Your task to perform on an android device: Go to Google maps Image 0: 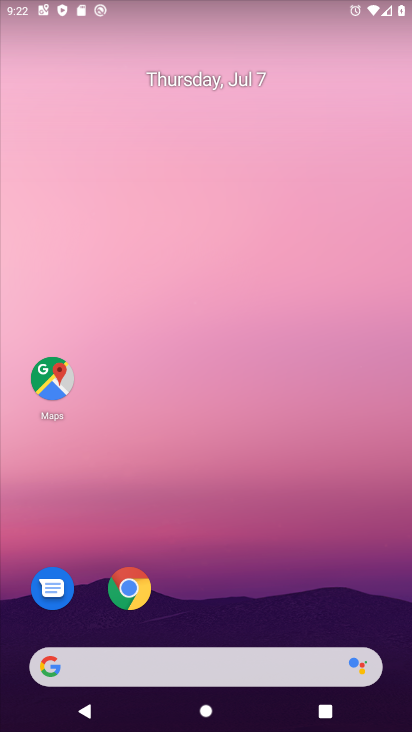
Step 0: click (47, 374)
Your task to perform on an android device: Go to Google maps Image 1: 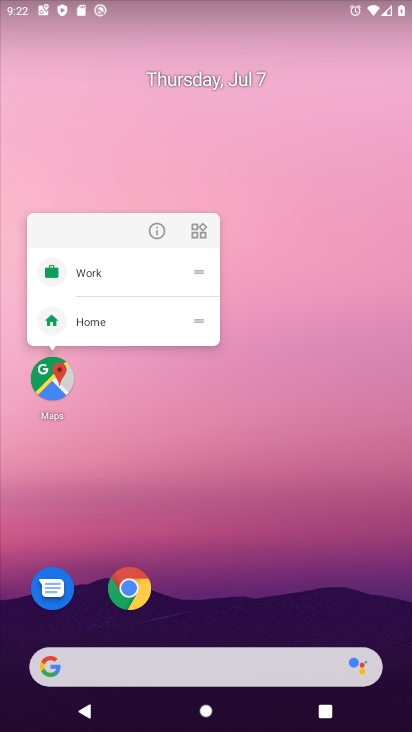
Step 1: click (47, 368)
Your task to perform on an android device: Go to Google maps Image 2: 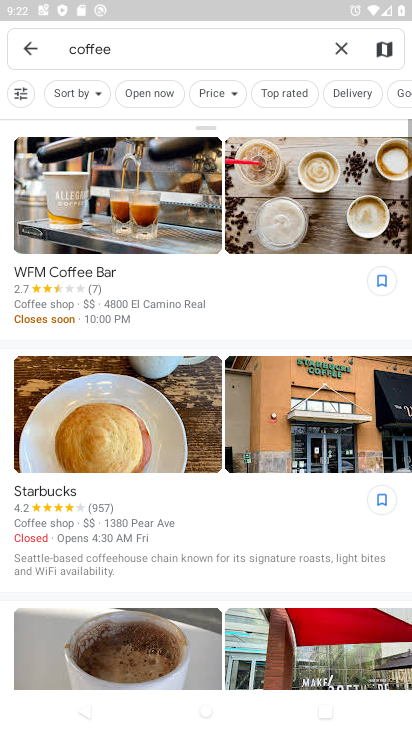
Step 2: click (23, 42)
Your task to perform on an android device: Go to Google maps Image 3: 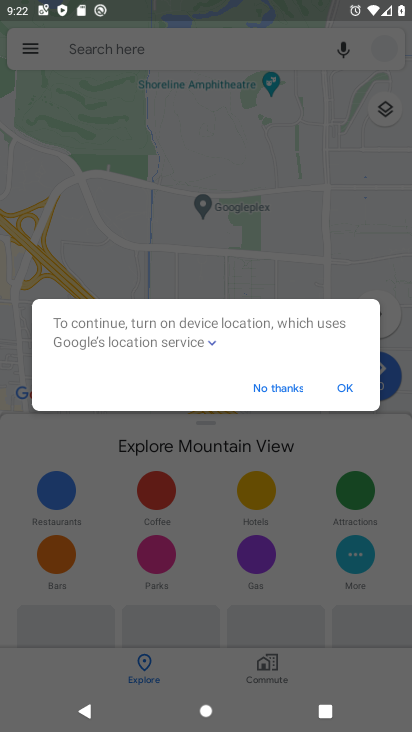
Step 3: click (349, 383)
Your task to perform on an android device: Go to Google maps Image 4: 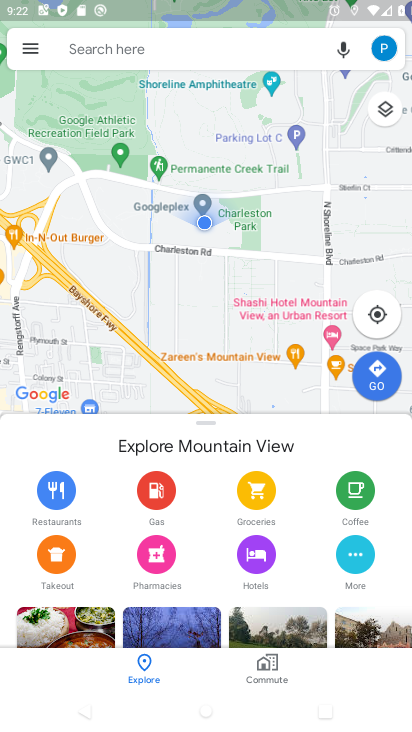
Step 4: click (261, 669)
Your task to perform on an android device: Go to Google maps Image 5: 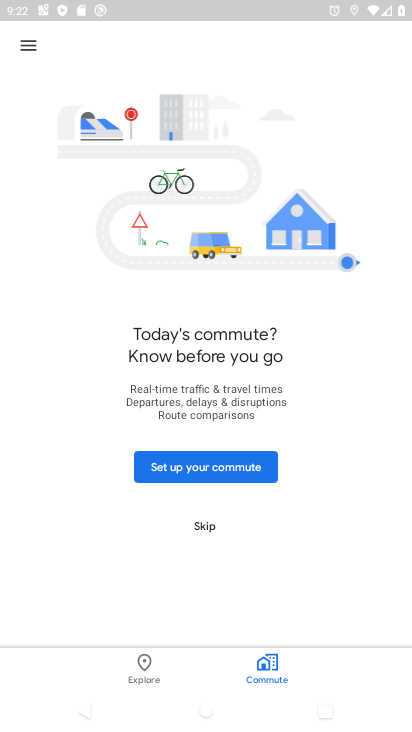
Step 5: task complete